Your task to perform on an android device: toggle airplane mode Image 0: 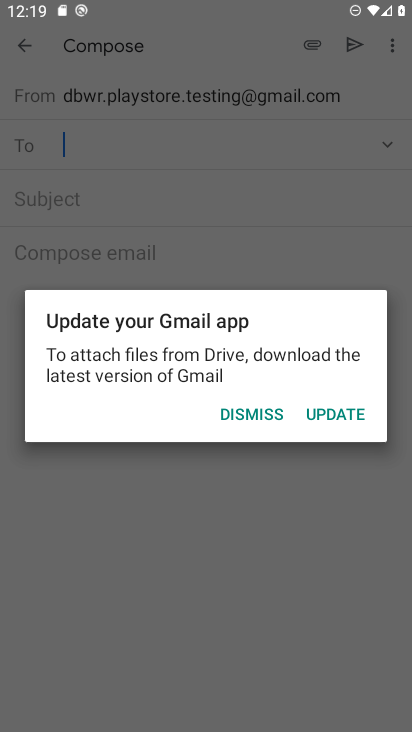
Step 0: click (264, 410)
Your task to perform on an android device: toggle airplane mode Image 1: 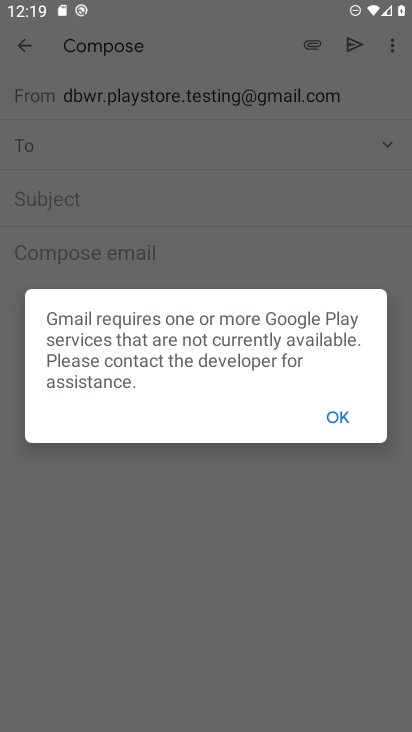
Step 1: press back button
Your task to perform on an android device: toggle airplane mode Image 2: 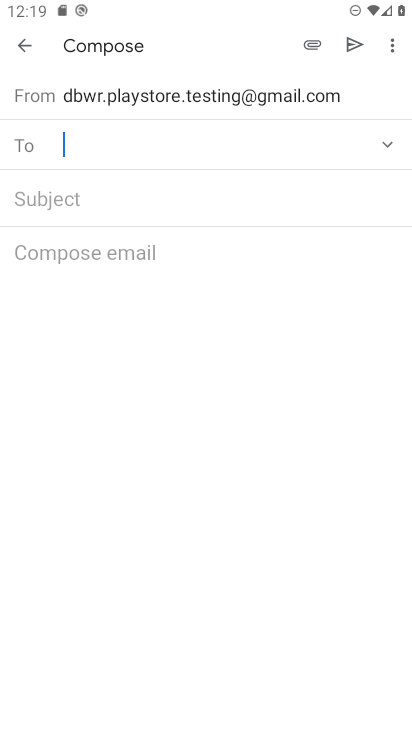
Step 2: click (21, 40)
Your task to perform on an android device: toggle airplane mode Image 3: 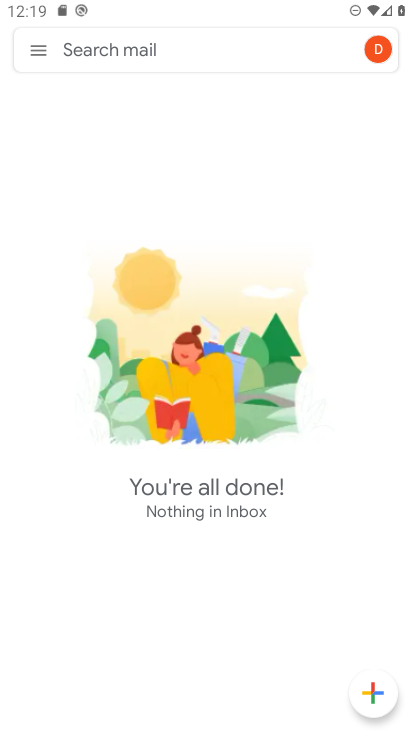
Step 3: press home button
Your task to perform on an android device: toggle airplane mode Image 4: 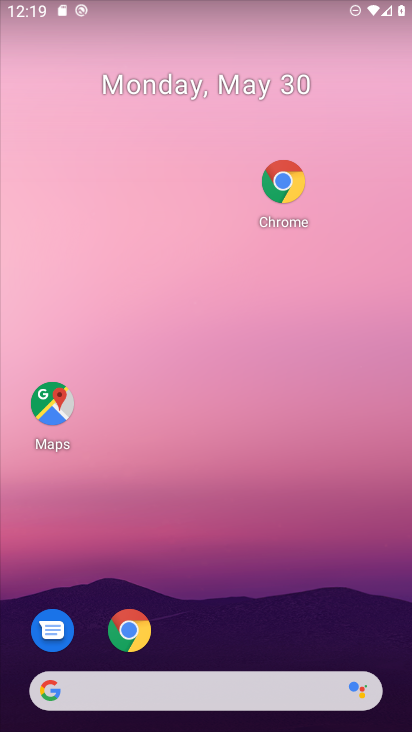
Step 4: drag from (248, 702) to (115, 54)
Your task to perform on an android device: toggle airplane mode Image 5: 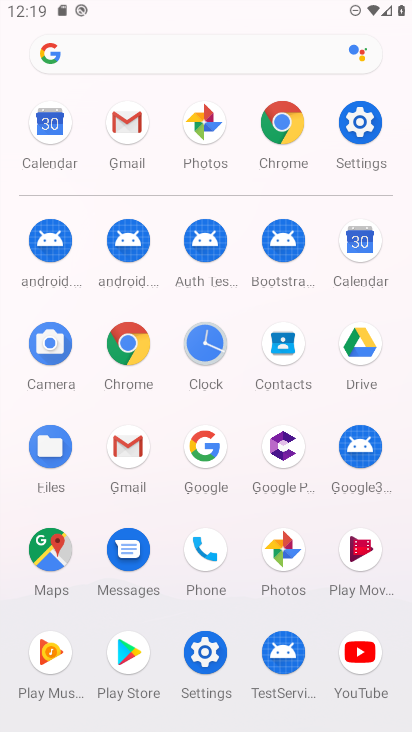
Step 5: click (359, 126)
Your task to perform on an android device: toggle airplane mode Image 6: 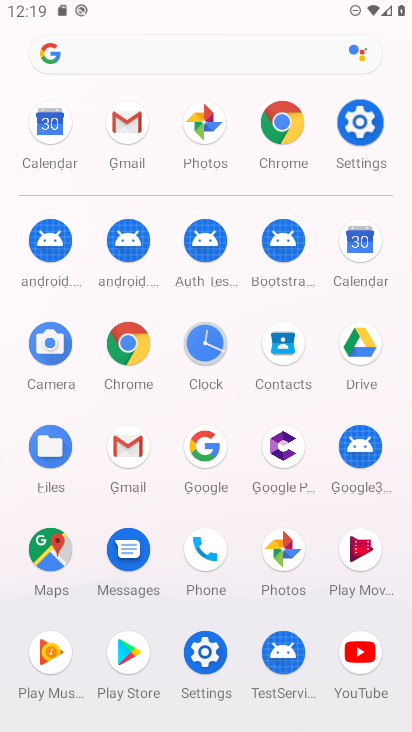
Step 6: click (359, 126)
Your task to perform on an android device: toggle airplane mode Image 7: 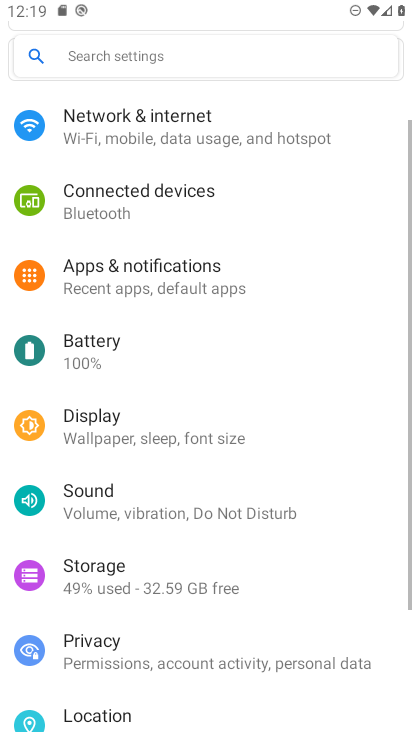
Step 7: click (357, 127)
Your task to perform on an android device: toggle airplane mode Image 8: 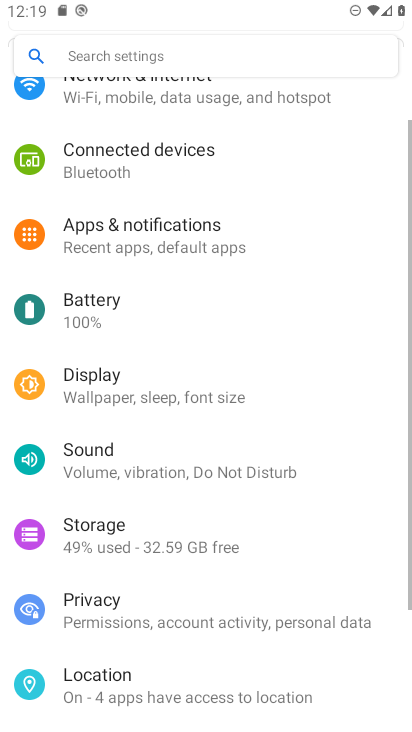
Step 8: click (357, 126)
Your task to perform on an android device: toggle airplane mode Image 9: 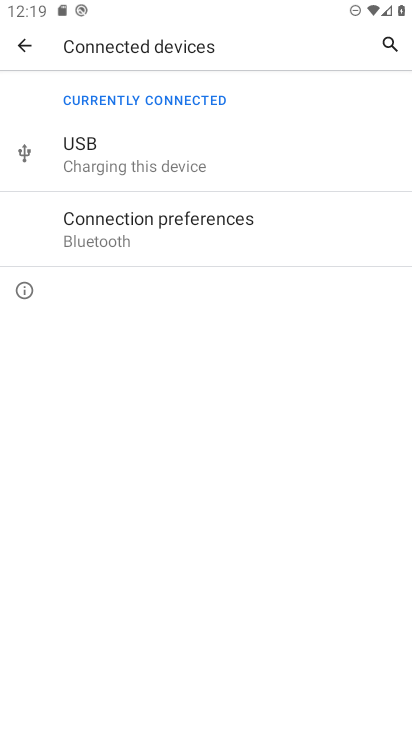
Step 9: click (18, 43)
Your task to perform on an android device: toggle airplane mode Image 10: 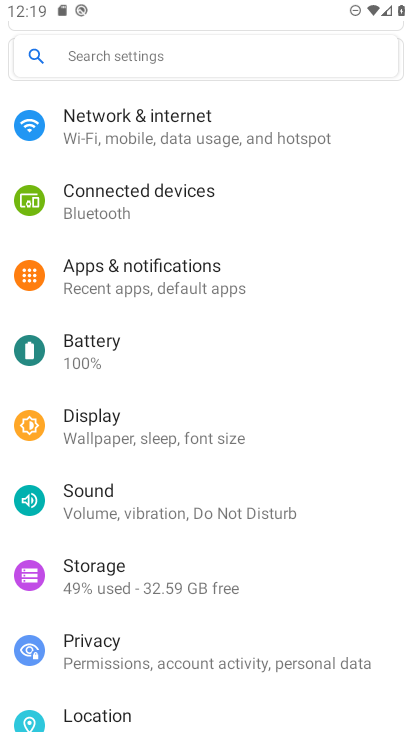
Step 10: click (157, 135)
Your task to perform on an android device: toggle airplane mode Image 11: 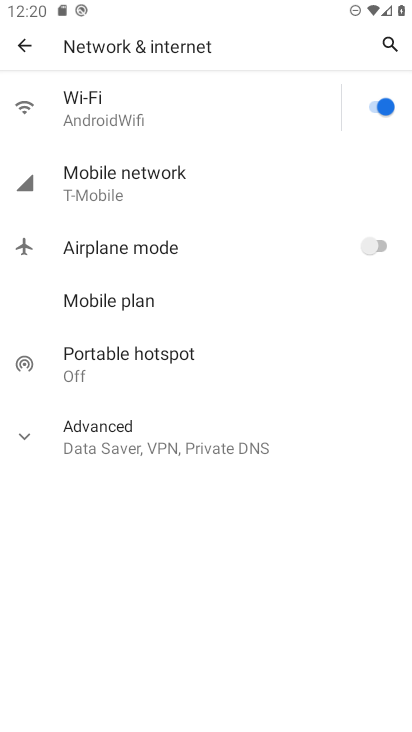
Step 11: click (365, 243)
Your task to perform on an android device: toggle airplane mode Image 12: 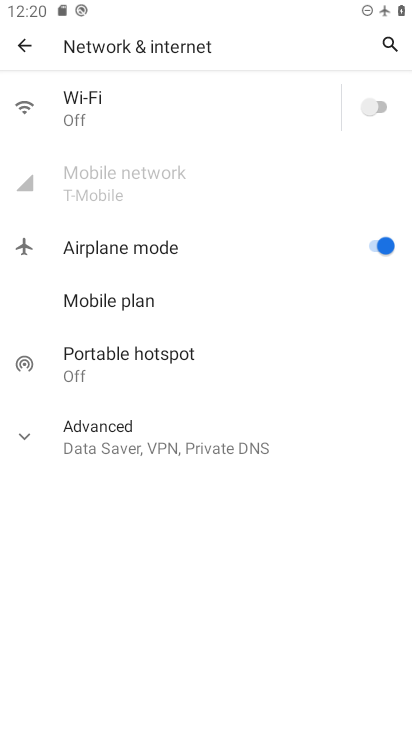
Step 12: click (369, 104)
Your task to perform on an android device: toggle airplane mode Image 13: 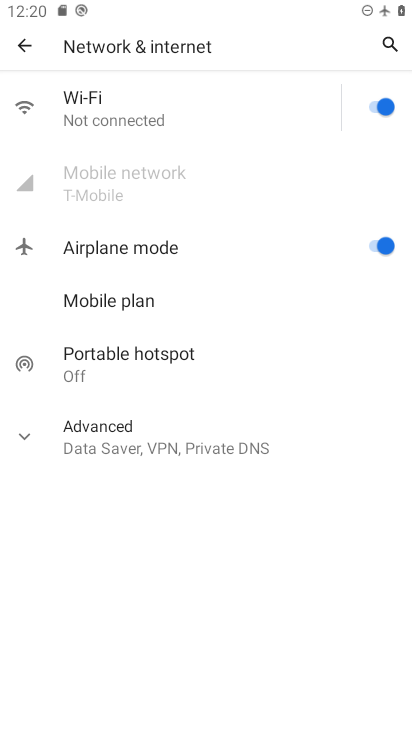
Step 13: task complete